Your task to perform on an android device: change the clock display to analog Image 0: 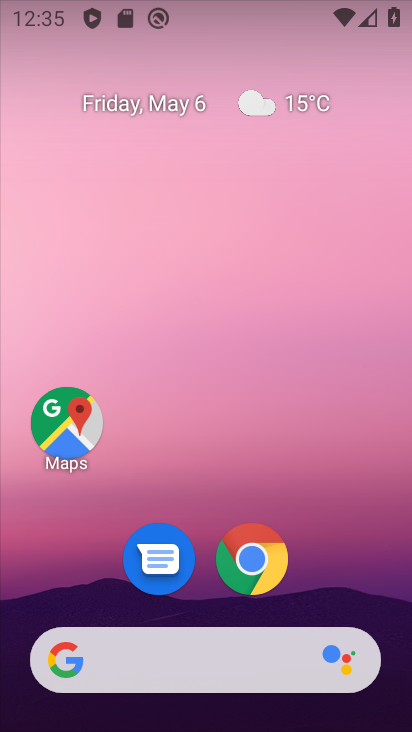
Step 0: drag from (195, 531) to (227, 5)
Your task to perform on an android device: change the clock display to analog Image 1: 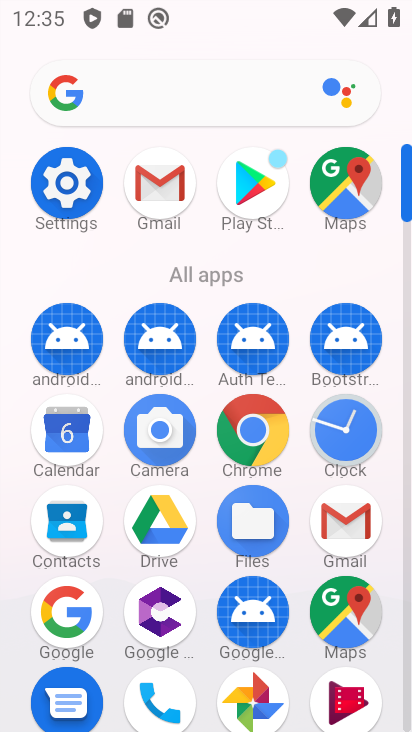
Step 1: click (340, 435)
Your task to perform on an android device: change the clock display to analog Image 2: 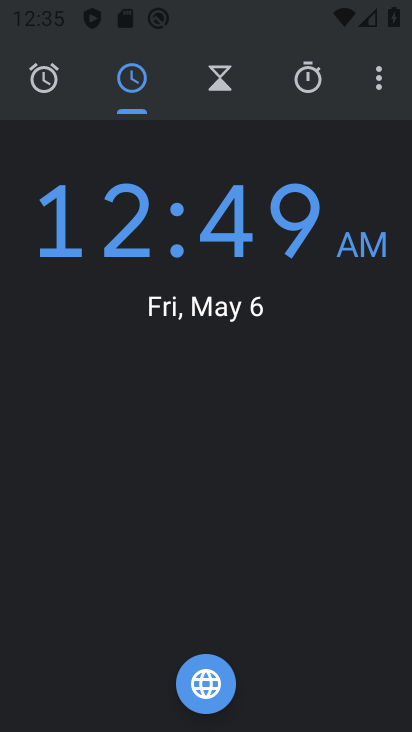
Step 2: click (380, 78)
Your task to perform on an android device: change the clock display to analog Image 3: 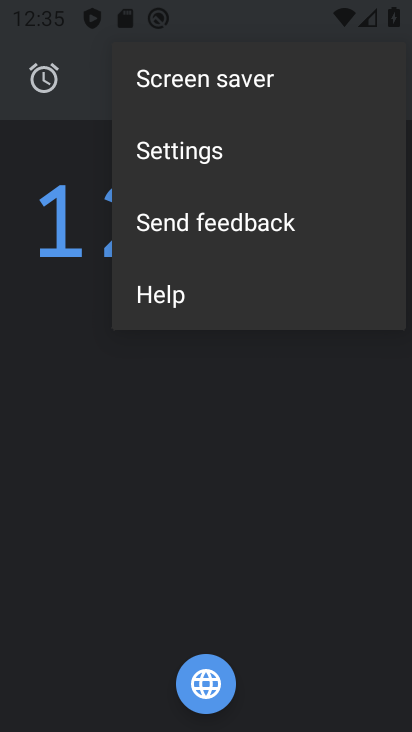
Step 3: click (186, 157)
Your task to perform on an android device: change the clock display to analog Image 4: 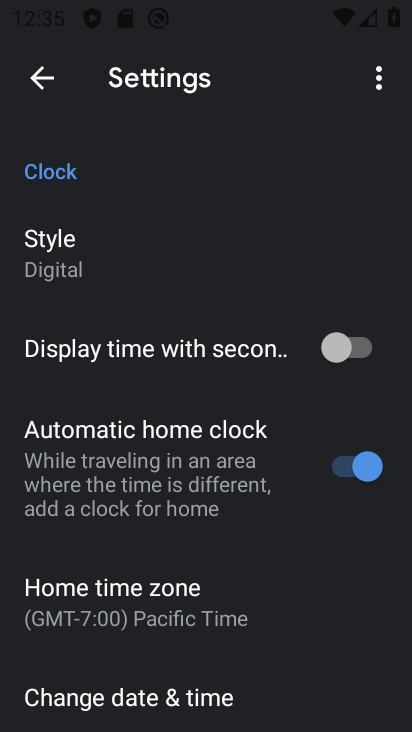
Step 4: click (112, 244)
Your task to perform on an android device: change the clock display to analog Image 5: 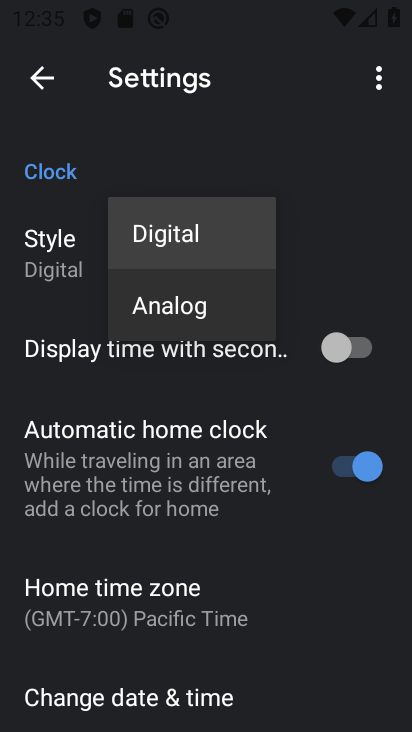
Step 5: click (140, 328)
Your task to perform on an android device: change the clock display to analog Image 6: 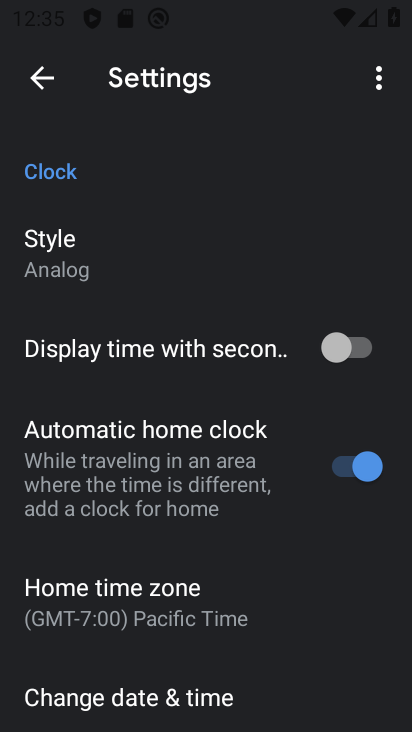
Step 6: task complete